Your task to perform on an android device: turn on translation in the chrome app Image 0: 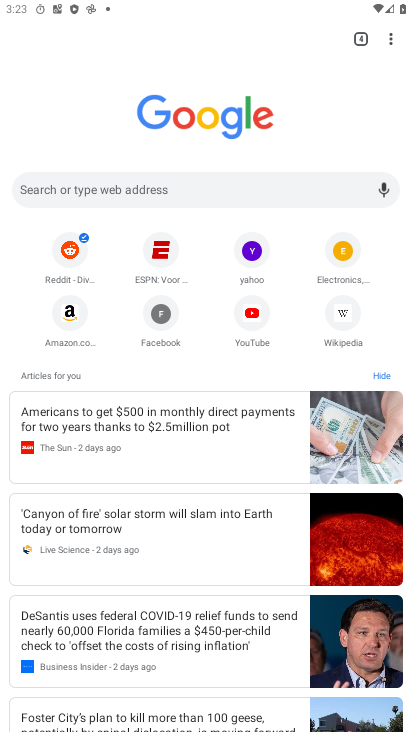
Step 0: press home button
Your task to perform on an android device: turn on translation in the chrome app Image 1: 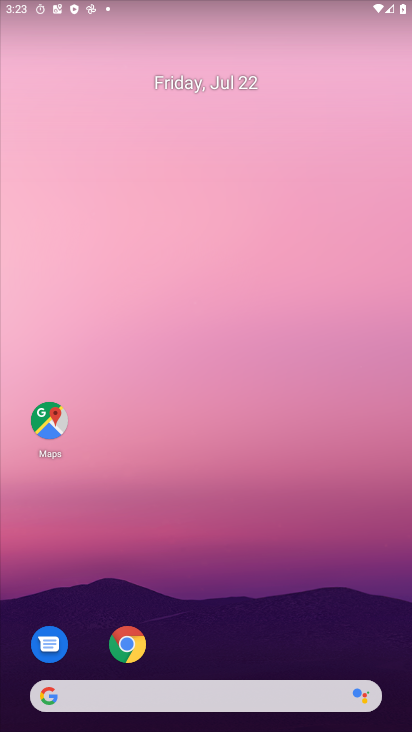
Step 1: drag from (306, 507) to (269, 151)
Your task to perform on an android device: turn on translation in the chrome app Image 2: 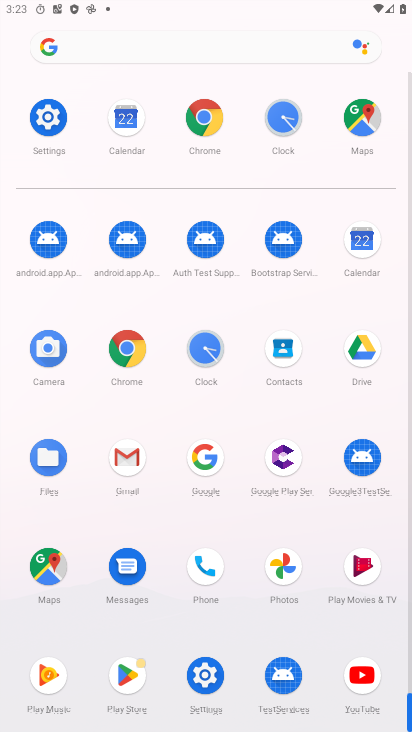
Step 2: click (130, 358)
Your task to perform on an android device: turn on translation in the chrome app Image 3: 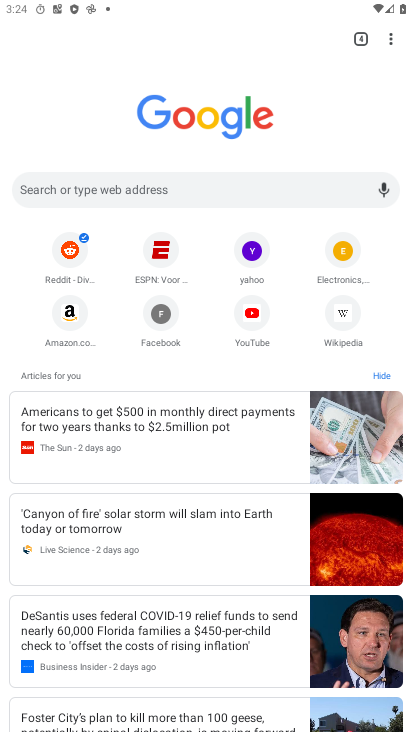
Step 3: click (391, 39)
Your task to perform on an android device: turn on translation in the chrome app Image 4: 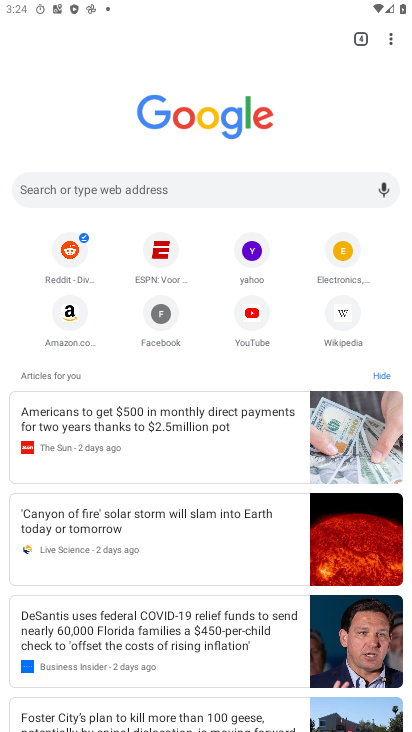
Step 4: click (390, 39)
Your task to perform on an android device: turn on translation in the chrome app Image 5: 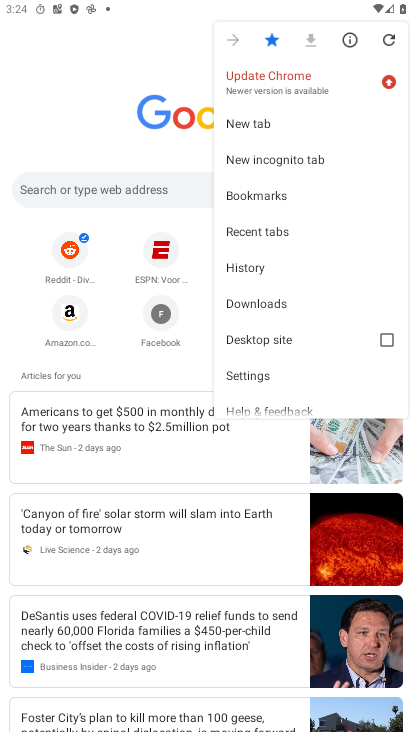
Step 5: task complete